Your task to perform on an android device: Open Android settings Image 0: 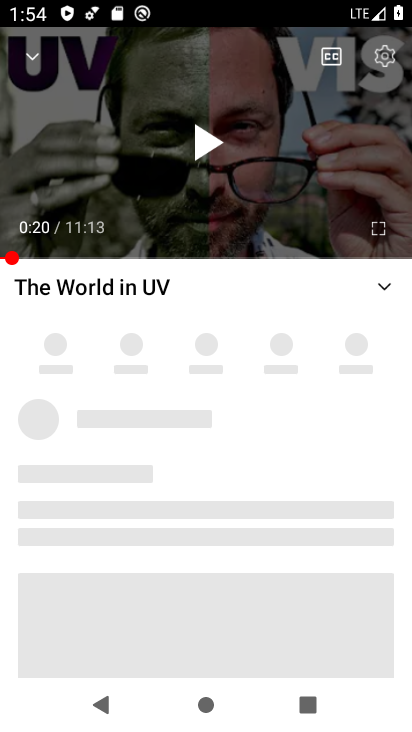
Step 0: press home button
Your task to perform on an android device: Open Android settings Image 1: 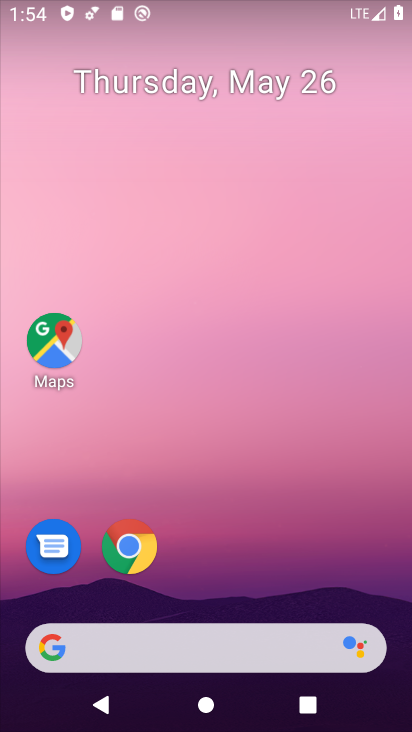
Step 1: drag from (256, 149) to (228, 37)
Your task to perform on an android device: Open Android settings Image 2: 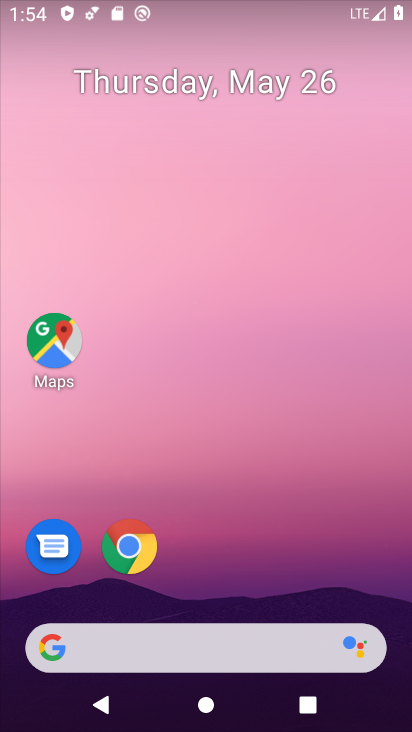
Step 2: drag from (267, 593) to (110, 11)
Your task to perform on an android device: Open Android settings Image 3: 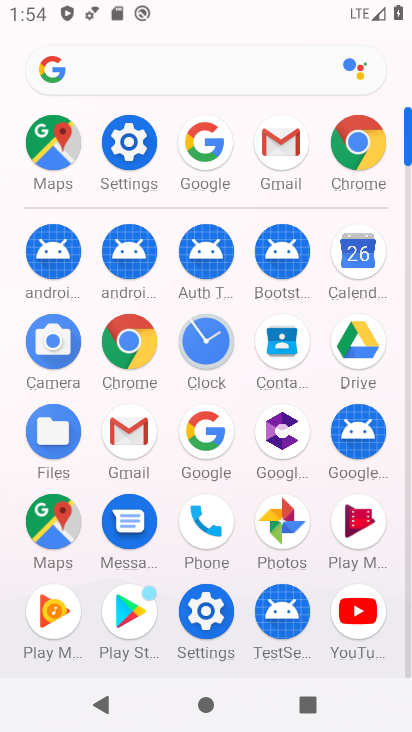
Step 3: click (129, 136)
Your task to perform on an android device: Open Android settings Image 4: 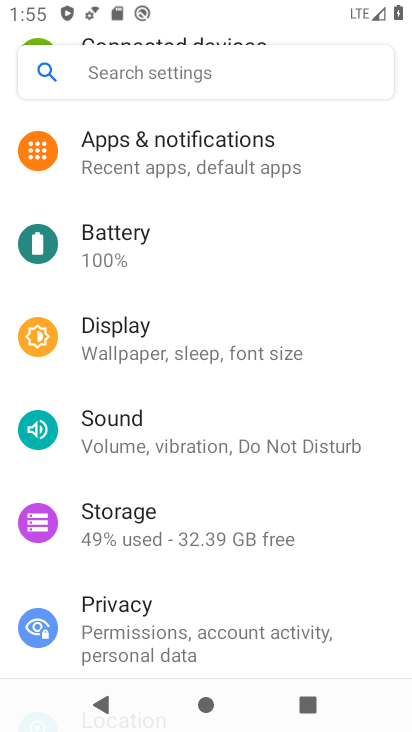
Step 4: drag from (243, 588) to (196, 12)
Your task to perform on an android device: Open Android settings Image 5: 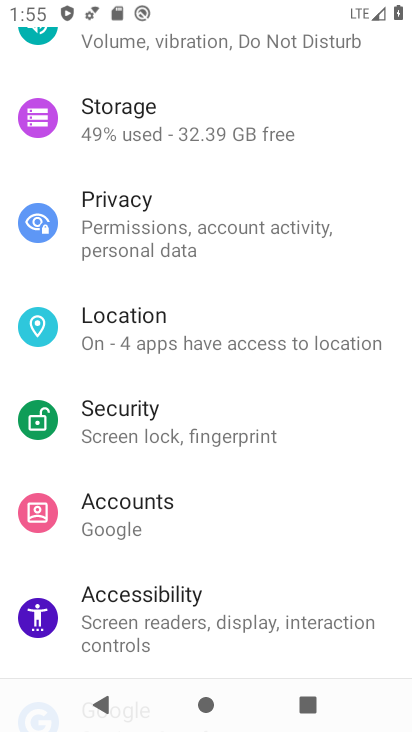
Step 5: drag from (202, 577) to (250, 100)
Your task to perform on an android device: Open Android settings Image 6: 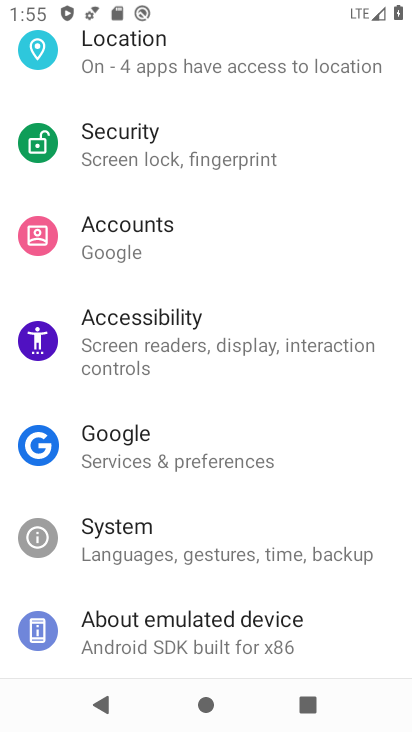
Step 6: click (206, 626)
Your task to perform on an android device: Open Android settings Image 7: 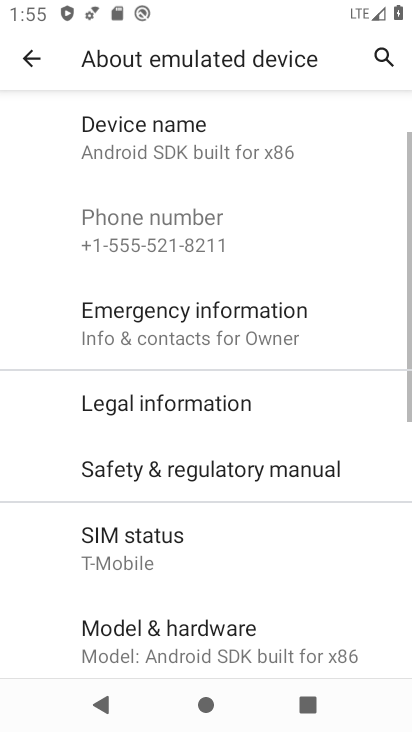
Step 7: drag from (251, 601) to (225, 167)
Your task to perform on an android device: Open Android settings Image 8: 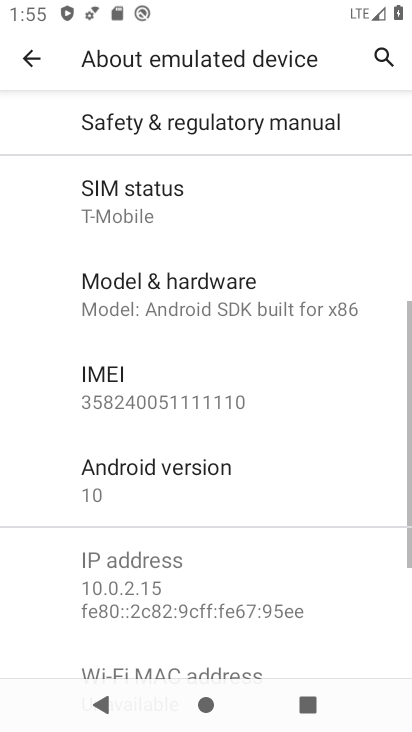
Step 8: click (226, 494)
Your task to perform on an android device: Open Android settings Image 9: 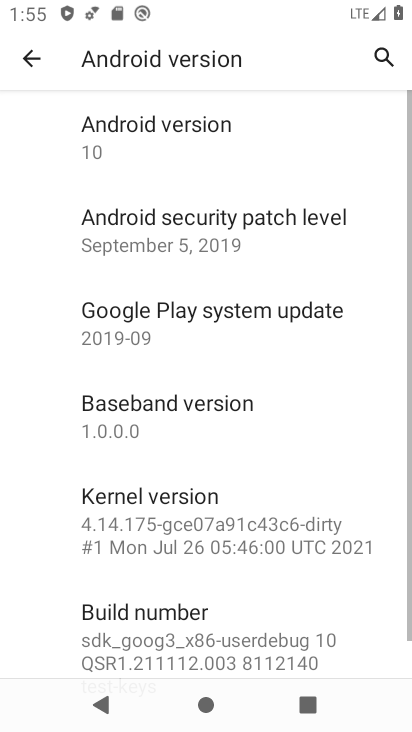
Step 9: task complete